Your task to perform on an android device: Go to eBay Image 0: 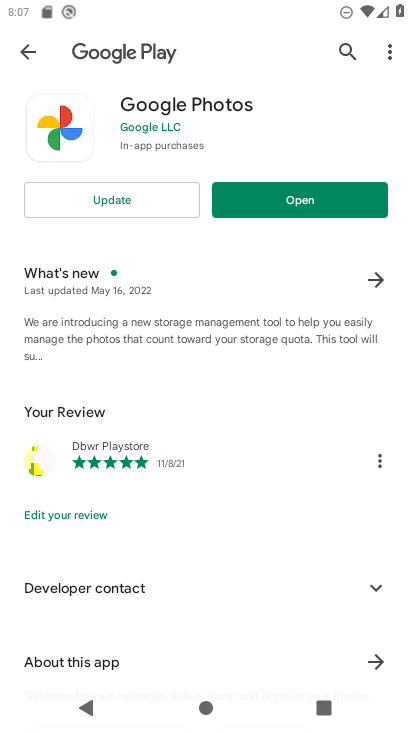
Step 0: press home button
Your task to perform on an android device: Go to eBay Image 1: 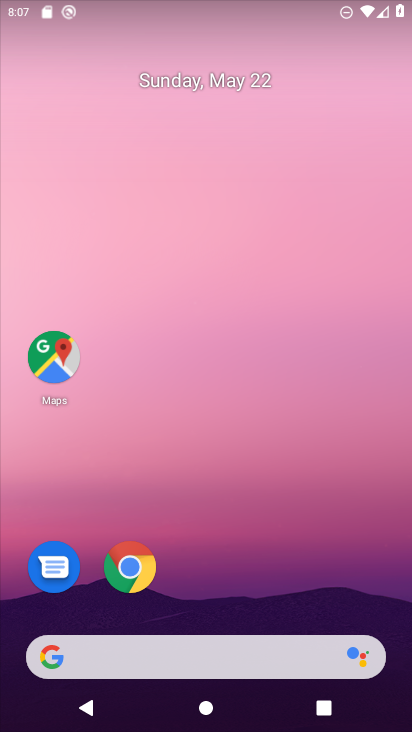
Step 1: click (125, 568)
Your task to perform on an android device: Go to eBay Image 2: 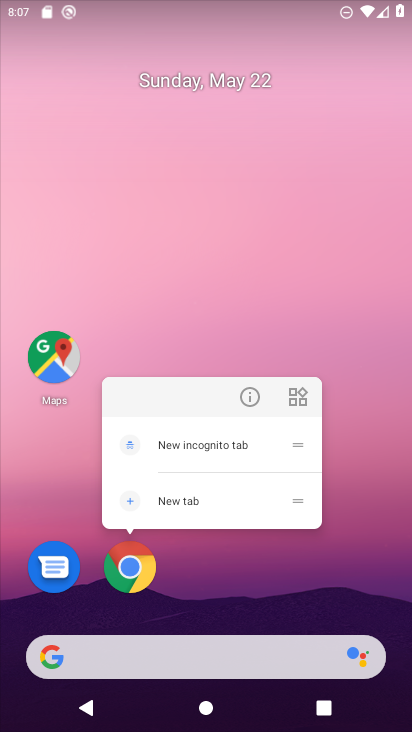
Step 2: click (124, 569)
Your task to perform on an android device: Go to eBay Image 3: 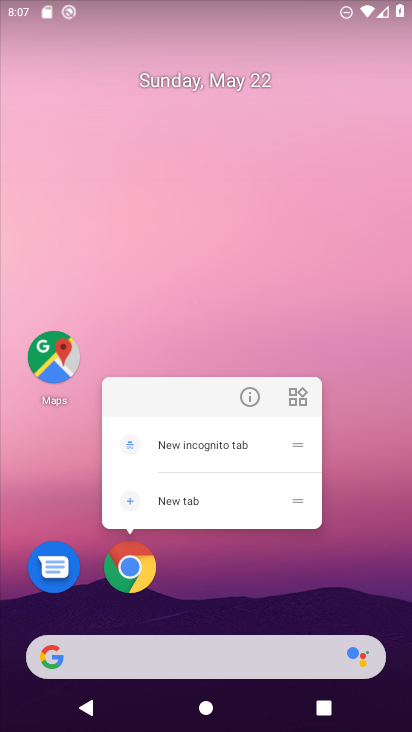
Step 3: click (123, 561)
Your task to perform on an android device: Go to eBay Image 4: 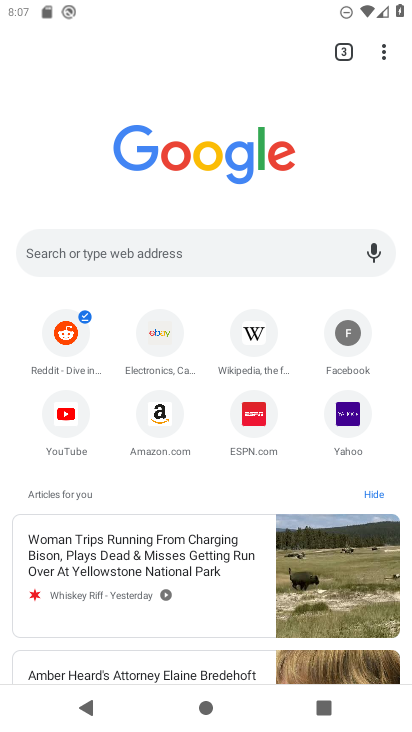
Step 4: click (155, 343)
Your task to perform on an android device: Go to eBay Image 5: 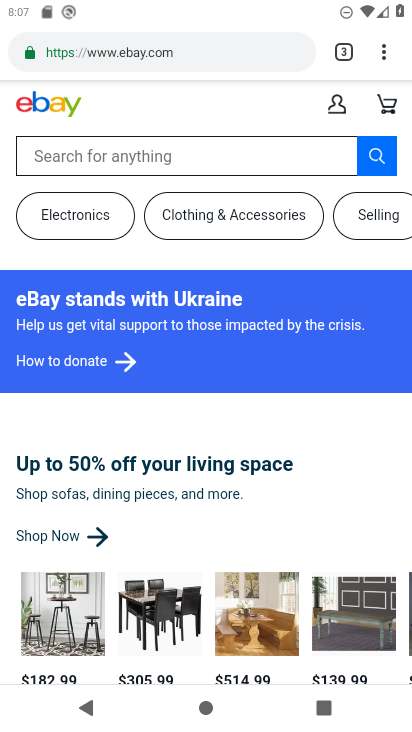
Step 5: task complete